Your task to perform on an android device: add a label to a message in the gmail app Image 0: 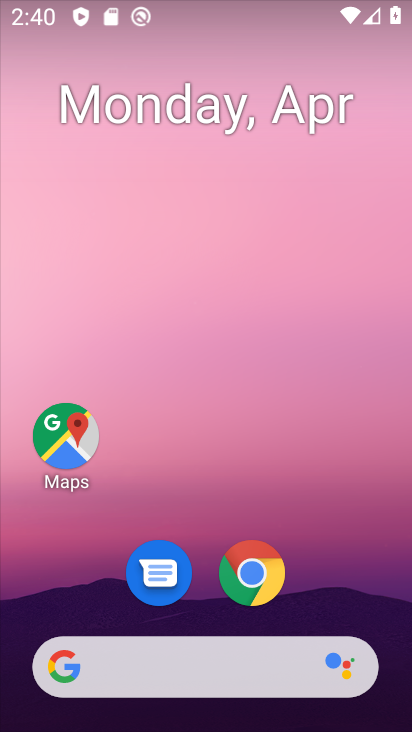
Step 0: drag from (352, 587) to (375, 52)
Your task to perform on an android device: add a label to a message in the gmail app Image 1: 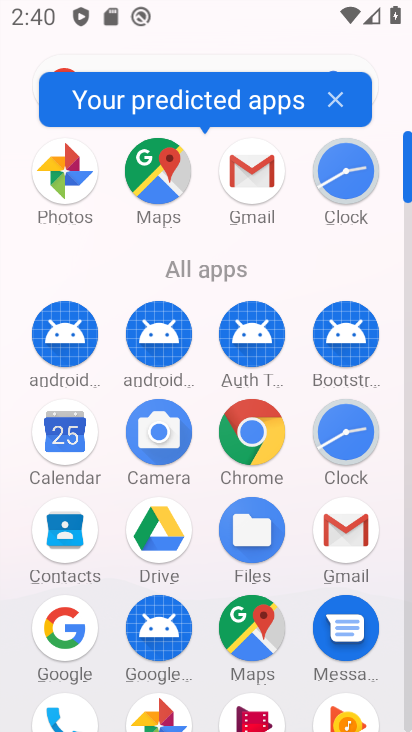
Step 1: click (255, 168)
Your task to perform on an android device: add a label to a message in the gmail app Image 2: 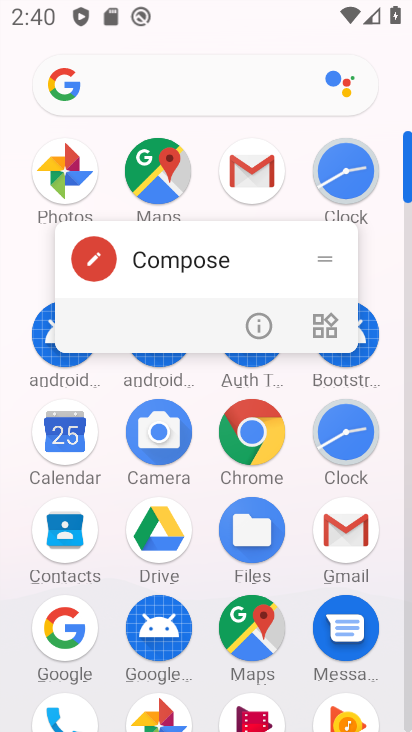
Step 2: click (256, 159)
Your task to perform on an android device: add a label to a message in the gmail app Image 3: 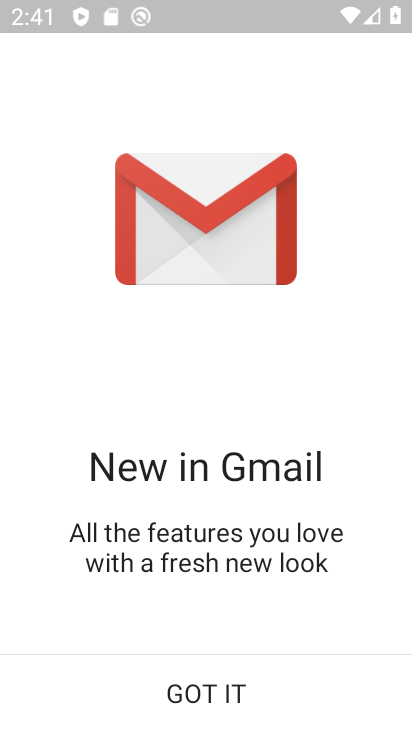
Step 3: click (303, 682)
Your task to perform on an android device: add a label to a message in the gmail app Image 4: 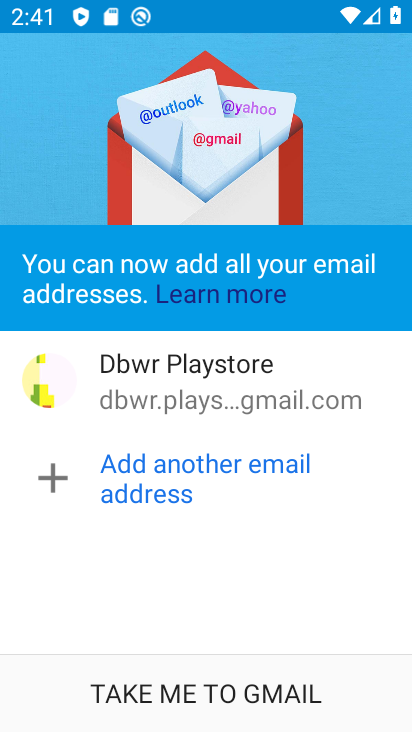
Step 4: click (346, 679)
Your task to perform on an android device: add a label to a message in the gmail app Image 5: 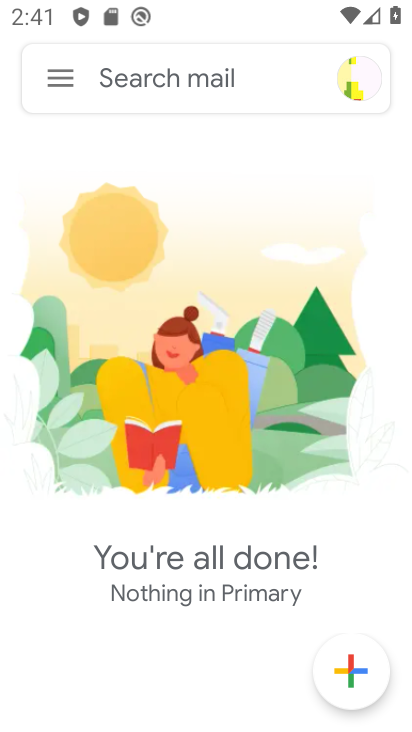
Step 5: task complete